Your task to perform on an android device: change the upload size in google photos Image 0: 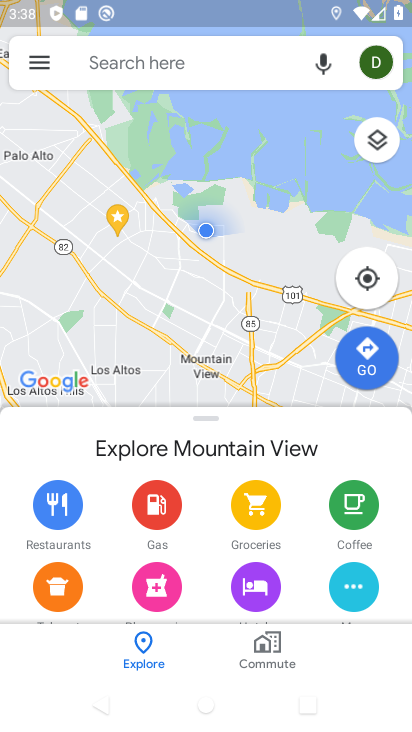
Step 0: press home button
Your task to perform on an android device: change the upload size in google photos Image 1: 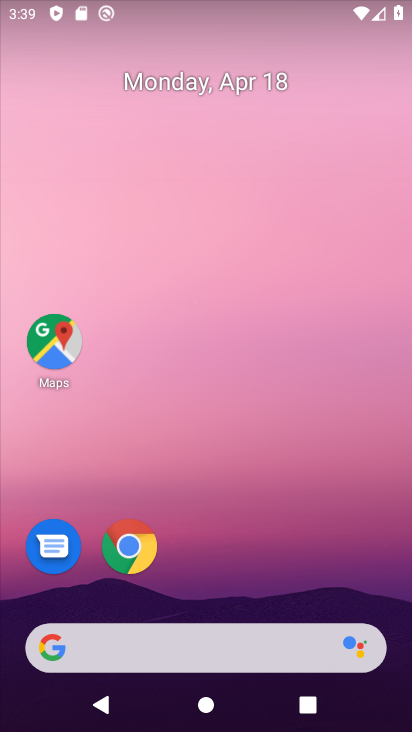
Step 1: drag from (298, 550) to (294, 141)
Your task to perform on an android device: change the upload size in google photos Image 2: 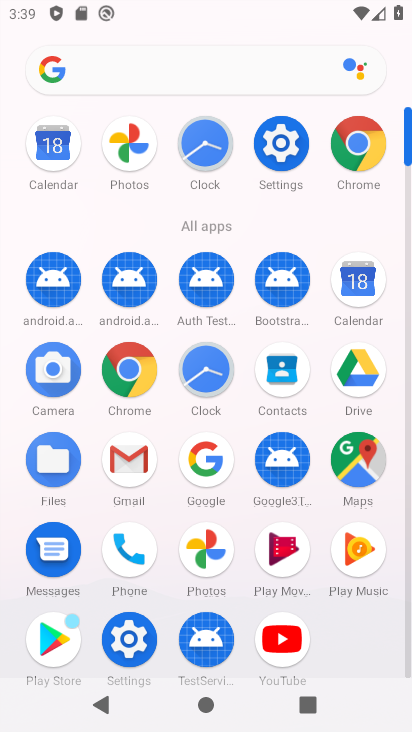
Step 2: click (140, 144)
Your task to perform on an android device: change the upload size in google photos Image 3: 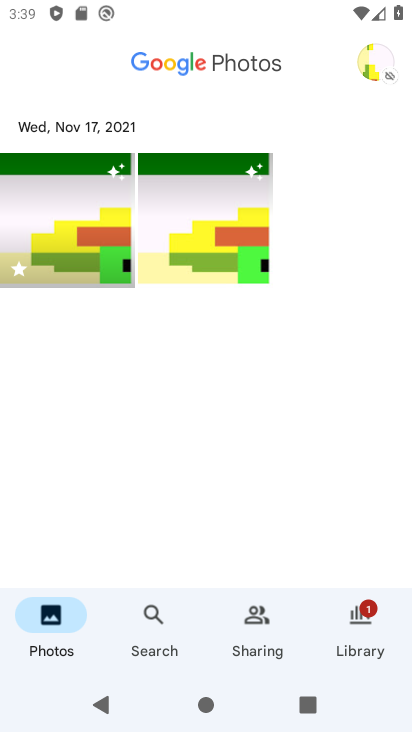
Step 3: click (26, 59)
Your task to perform on an android device: change the upload size in google photos Image 4: 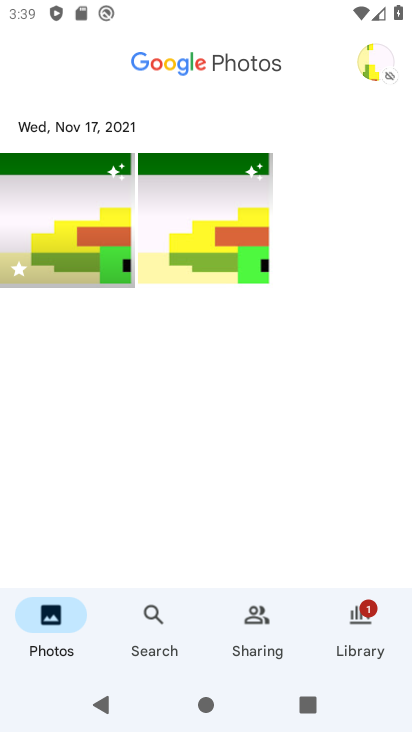
Step 4: click (378, 55)
Your task to perform on an android device: change the upload size in google photos Image 5: 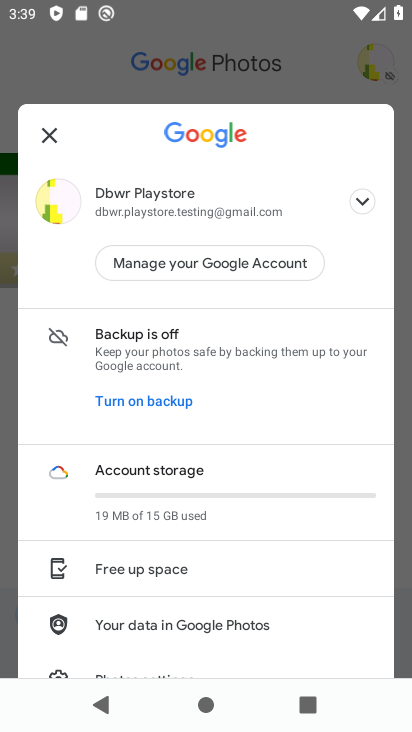
Step 5: drag from (217, 564) to (227, 444)
Your task to perform on an android device: change the upload size in google photos Image 6: 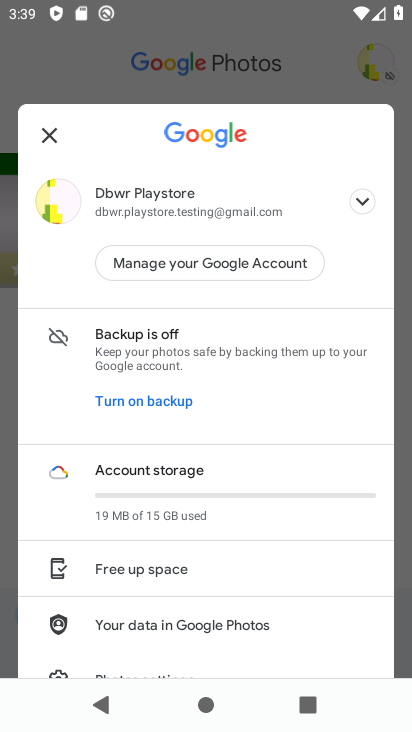
Step 6: click (166, 508)
Your task to perform on an android device: change the upload size in google photos Image 7: 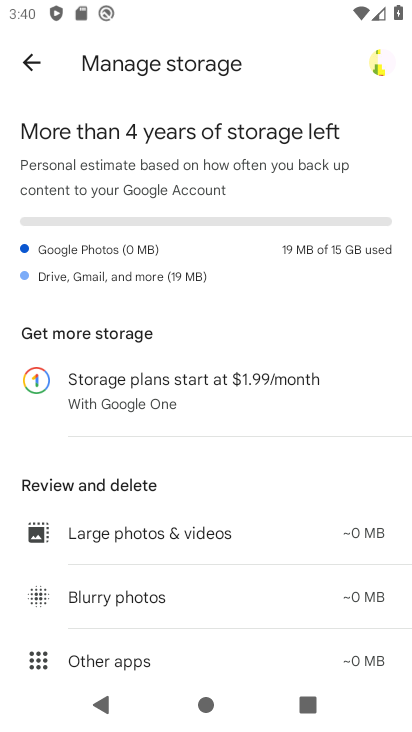
Step 7: drag from (244, 609) to (273, 322)
Your task to perform on an android device: change the upload size in google photos Image 8: 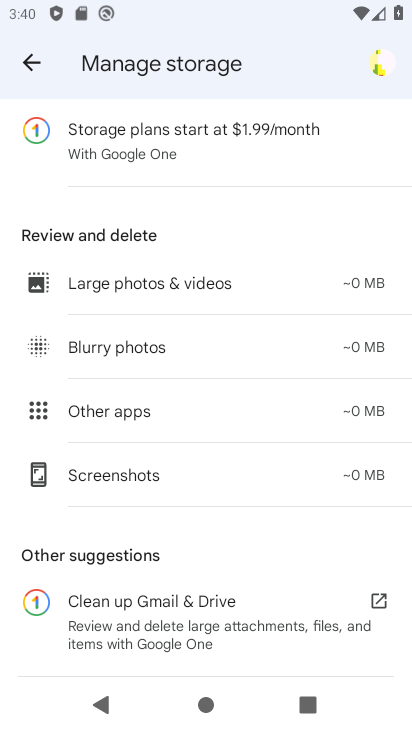
Step 8: click (228, 281)
Your task to perform on an android device: change the upload size in google photos Image 9: 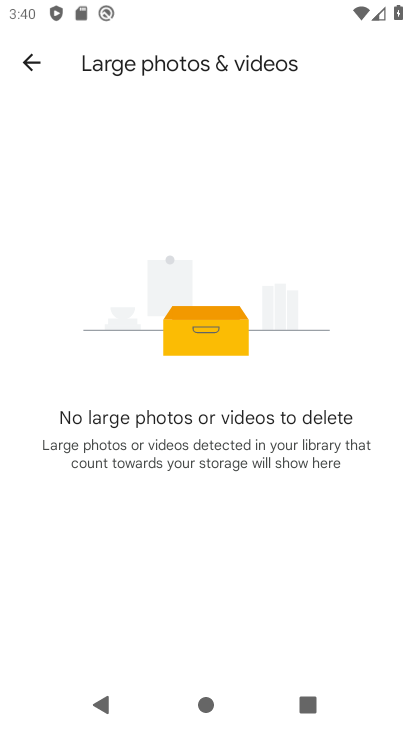
Step 9: click (33, 60)
Your task to perform on an android device: change the upload size in google photos Image 10: 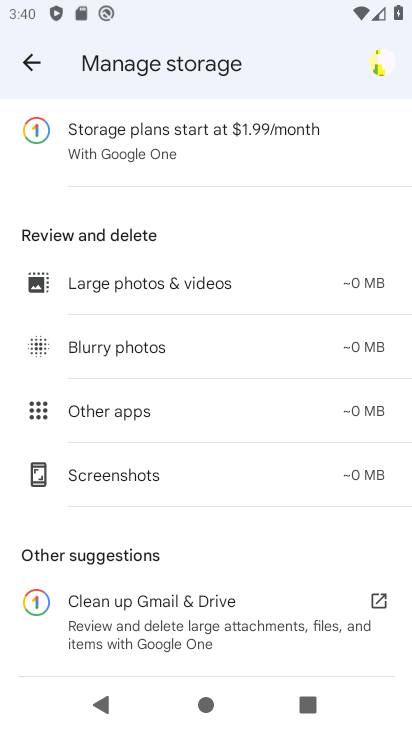
Step 10: drag from (239, 272) to (232, 560)
Your task to perform on an android device: change the upload size in google photos Image 11: 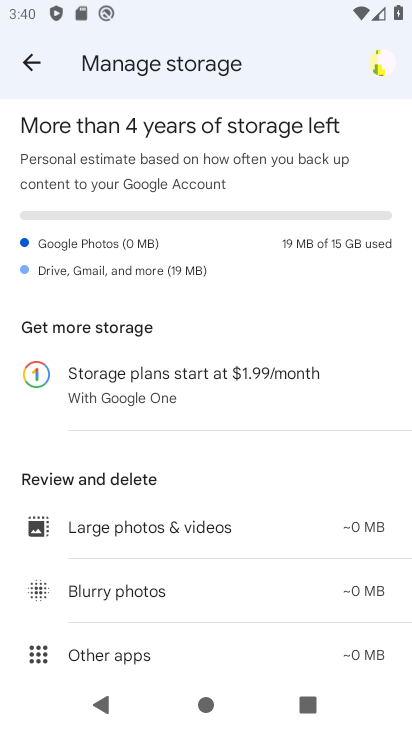
Step 11: drag from (300, 238) to (230, 539)
Your task to perform on an android device: change the upload size in google photos Image 12: 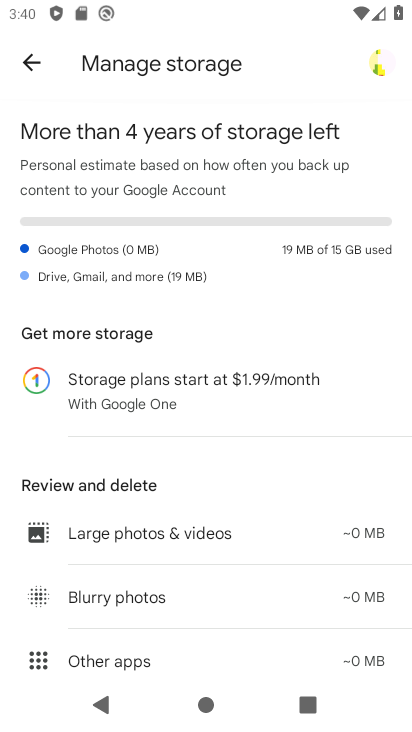
Step 12: drag from (237, 519) to (340, 208)
Your task to perform on an android device: change the upload size in google photos Image 13: 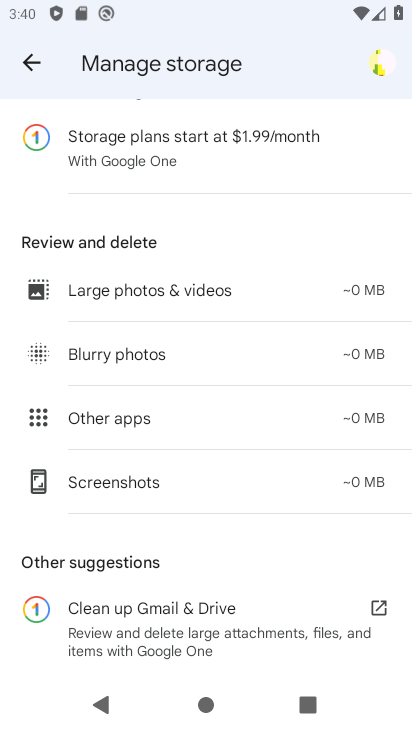
Step 13: click (236, 633)
Your task to perform on an android device: change the upload size in google photos Image 14: 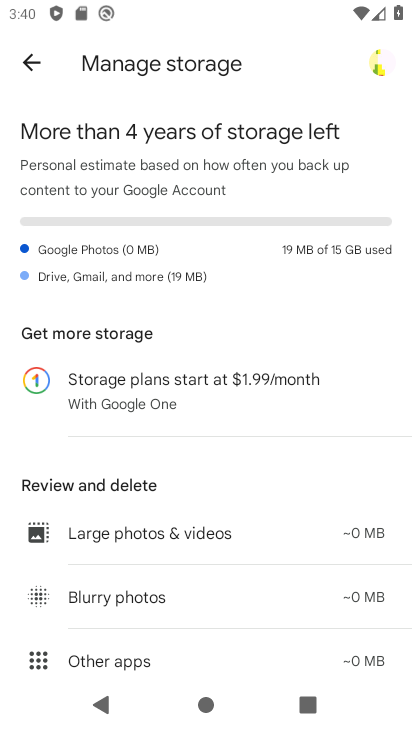
Step 14: click (24, 52)
Your task to perform on an android device: change the upload size in google photos Image 15: 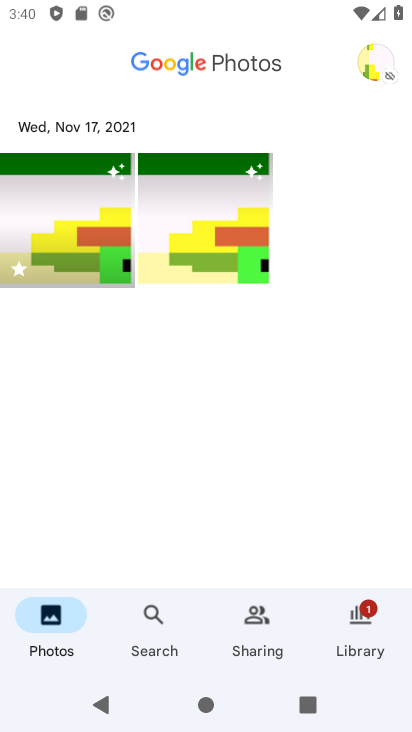
Step 15: click (361, 48)
Your task to perform on an android device: change the upload size in google photos Image 16: 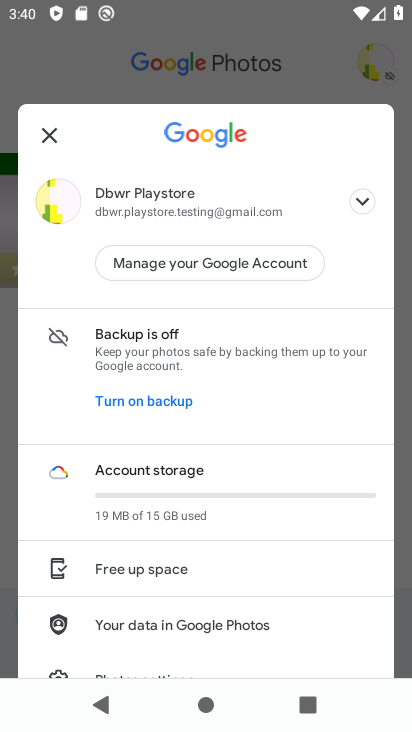
Step 16: drag from (253, 564) to (277, 364)
Your task to perform on an android device: change the upload size in google photos Image 17: 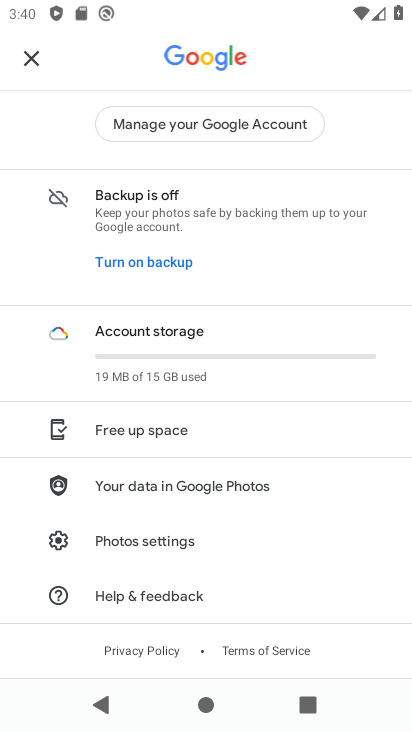
Step 17: click (161, 538)
Your task to perform on an android device: change the upload size in google photos Image 18: 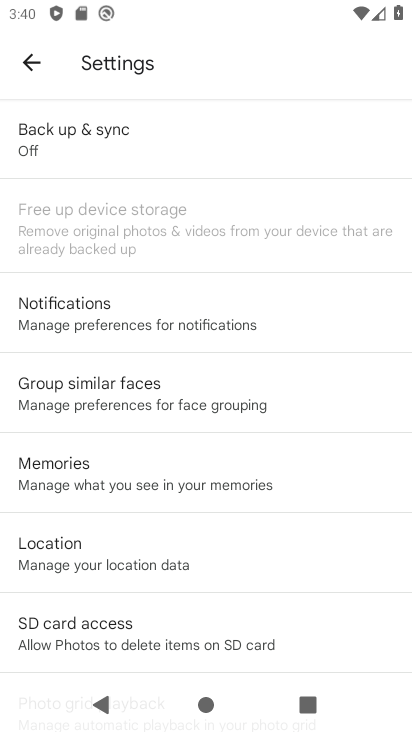
Step 18: click (227, 142)
Your task to perform on an android device: change the upload size in google photos Image 19: 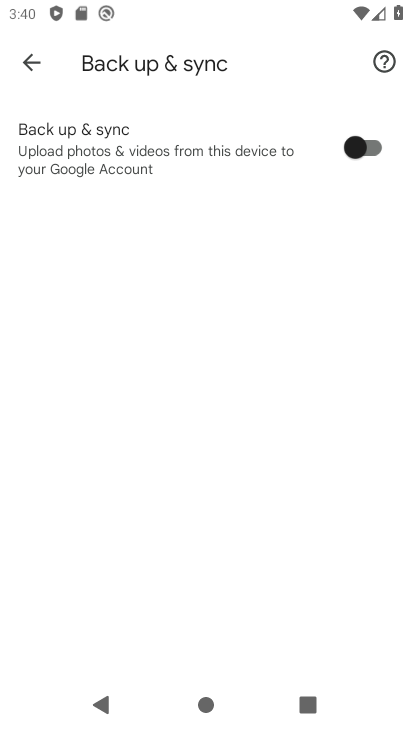
Step 19: click (154, 145)
Your task to perform on an android device: change the upload size in google photos Image 20: 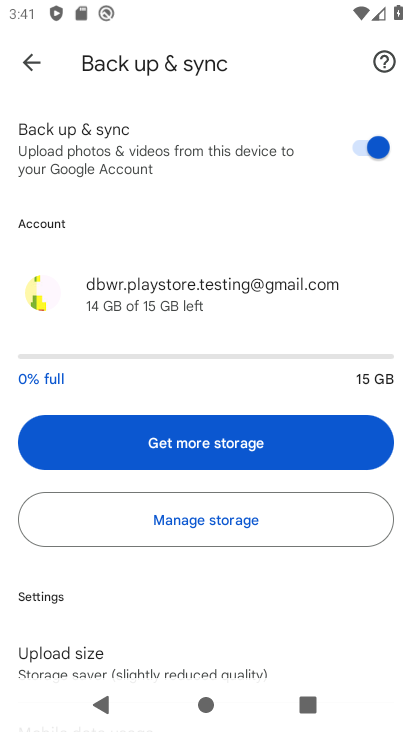
Step 20: click (105, 661)
Your task to perform on an android device: change the upload size in google photos Image 21: 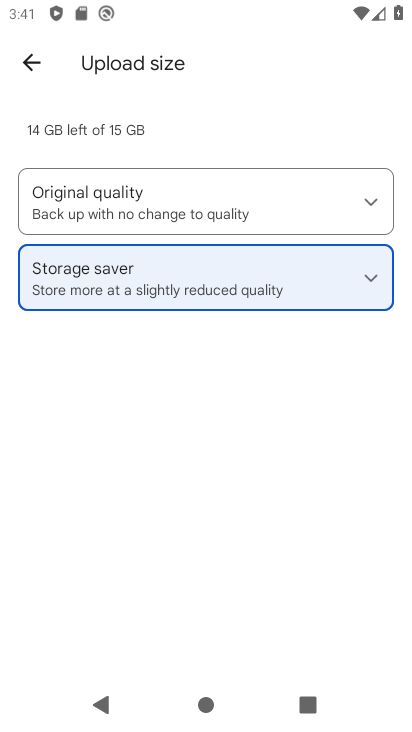
Step 21: click (171, 206)
Your task to perform on an android device: change the upload size in google photos Image 22: 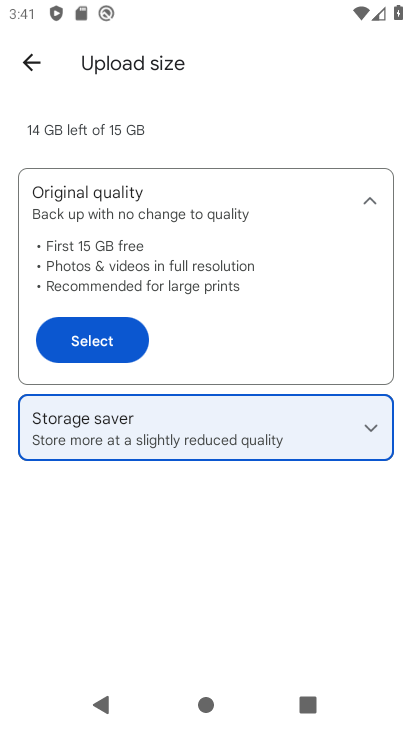
Step 22: click (126, 337)
Your task to perform on an android device: change the upload size in google photos Image 23: 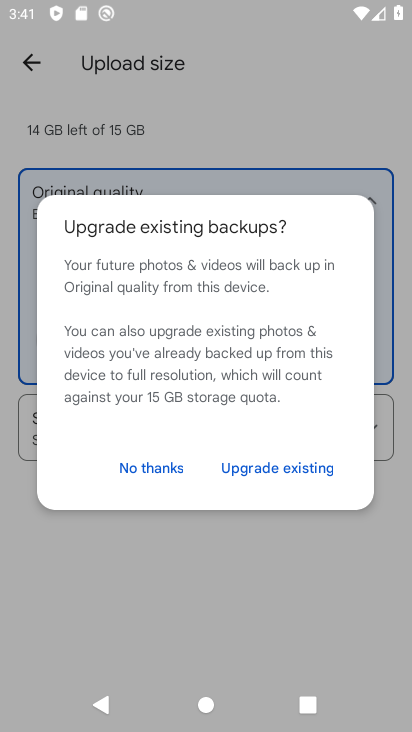
Step 23: click (147, 466)
Your task to perform on an android device: change the upload size in google photos Image 24: 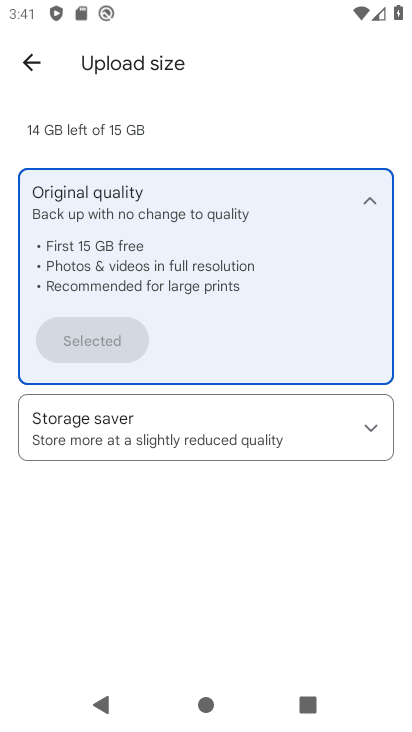
Step 24: task complete